Your task to perform on an android device: Show me the alarms in the clock app Image 0: 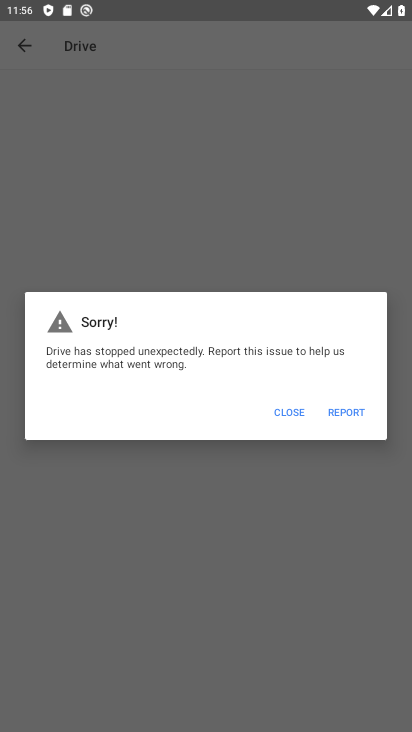
Step 0: press home button
Your task to perform on an android device: Show me the alarms in the clock app Image 1: 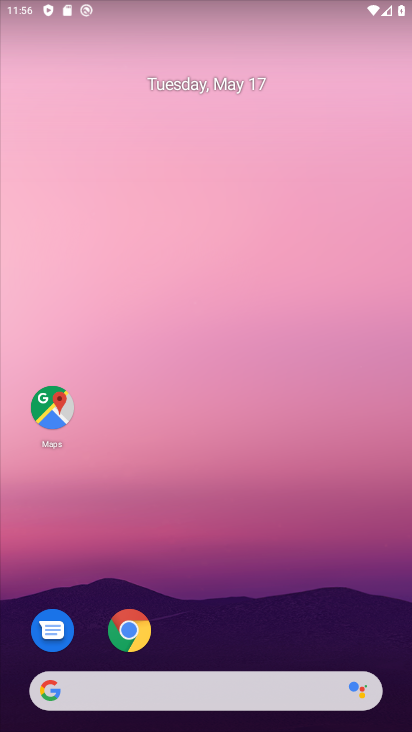
Step 1: drag from (291, 522) to (312, 103)
Your task to perform on an android device: Show me the alarms in the clock app Image 2: 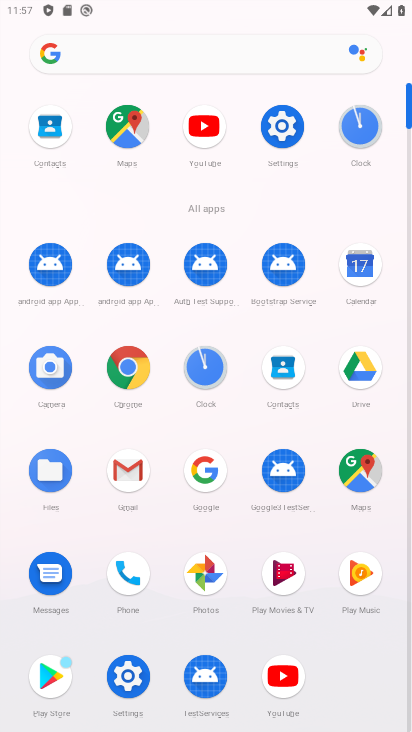
Step 2: click (356, 126)
Your task to perform on an android device: Show me the alarms in the clock app Image 3: 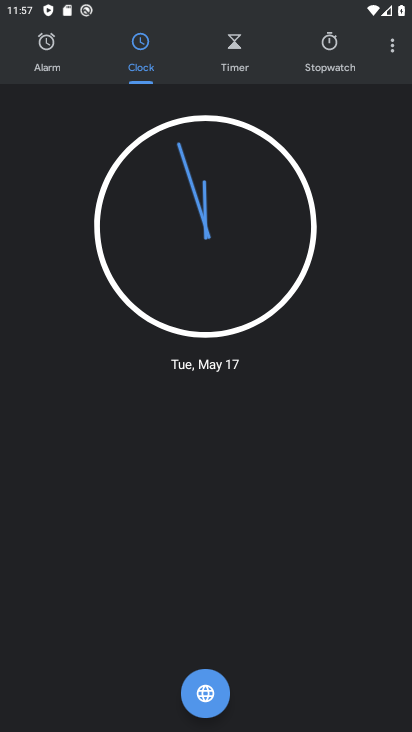
Step 3: click (376, 167)
Your task to perform on an android device: Show me the alarms in the clock app Image 4: 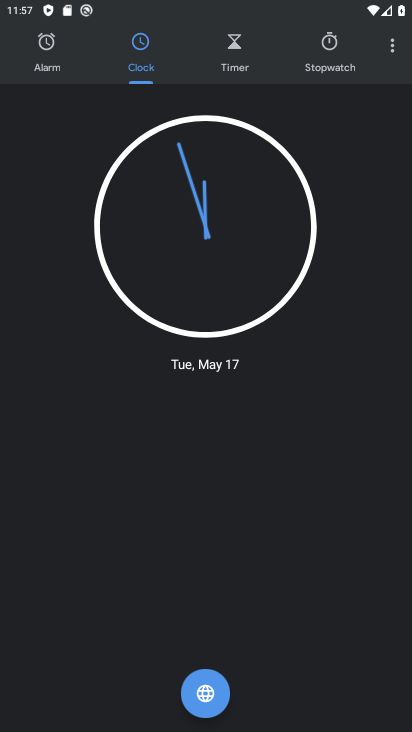
Step 4: click (43, 68)
Your task to perform on an android device: Show me the alarms in the clock app Image 5: 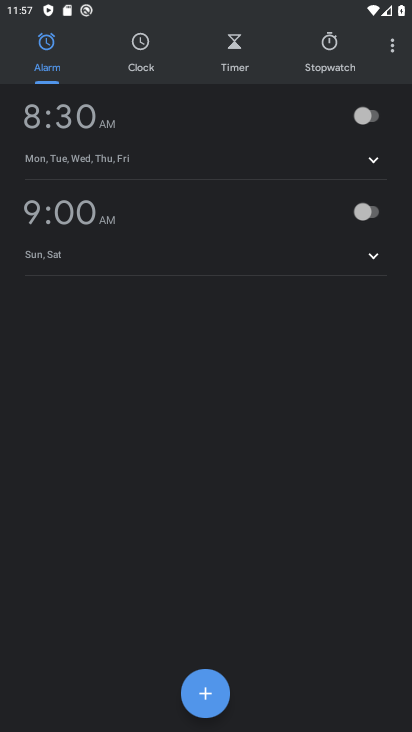
Step 5: task complete